Your task to perform on an android device: change notifications settings Image 0: 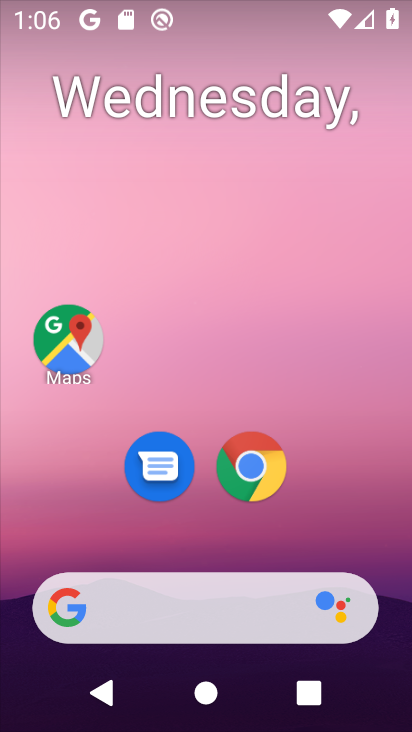
Step 0: drag from (299, 518) to (304, 240)
Your task to perform on an android device: change notifications settings Image 1: 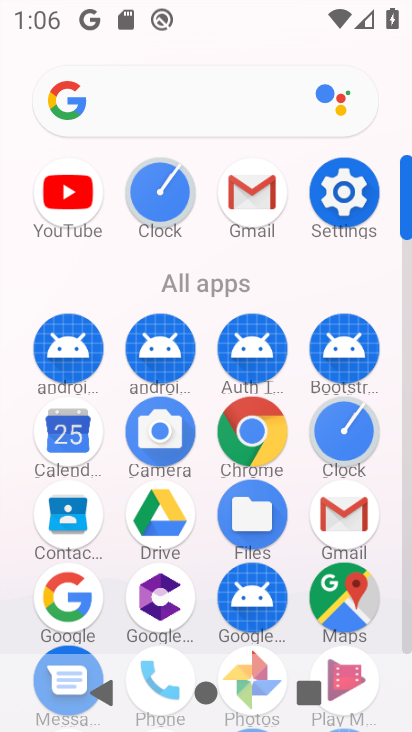
Step 1: click (337, 188)
Your task to perform on an android device: change notifications settings Image 2: 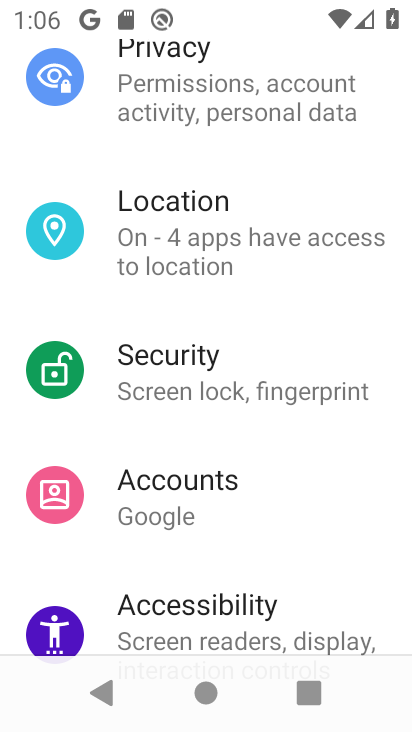
Step 2: drag from (333, 183) to (336, 587)
Your task to perform on an android device: change notifications settings Image 3: 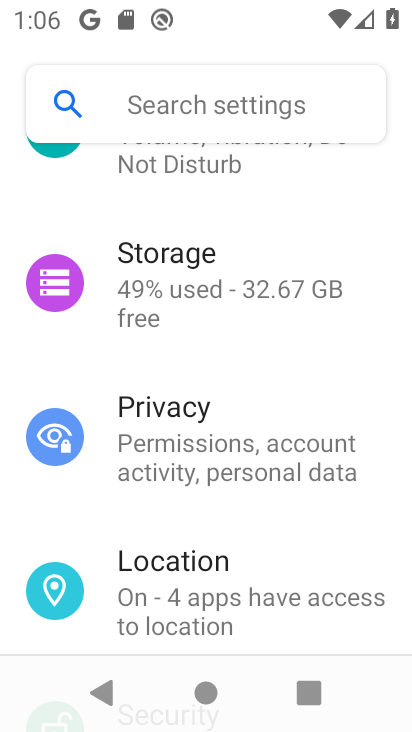
Step 3: drag from (346, 240) to (332, 555)
Your task to perform on an android device: change notifications settings Image 4: 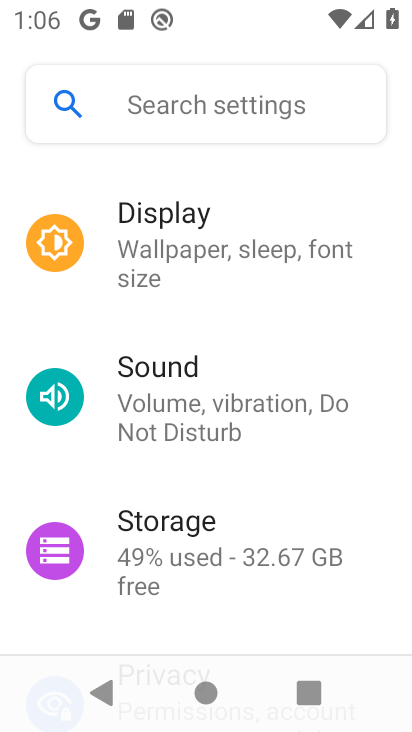
Step 4: drag from (286, 306) to (272, 612)
Your task to perform on an android device: change notifications settings Image 5: 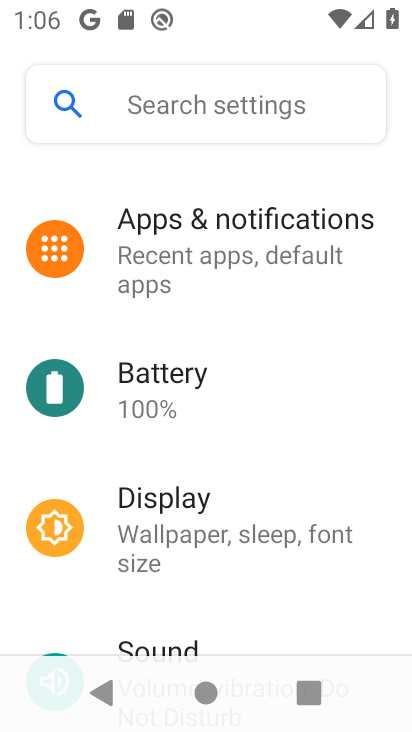
Step 5: drag from (281, 305) to (350, 533)
Your task to perform on an android device: change notifications settings Image 6: 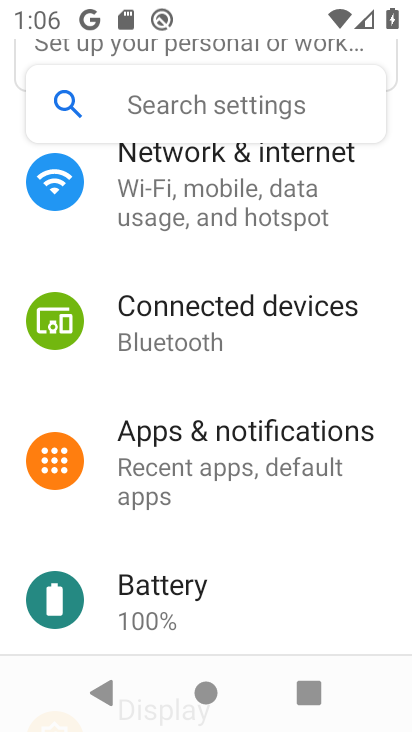
Step 6: click (246, 440)
Your task to perform on an android device: change notifications settings Image 7: 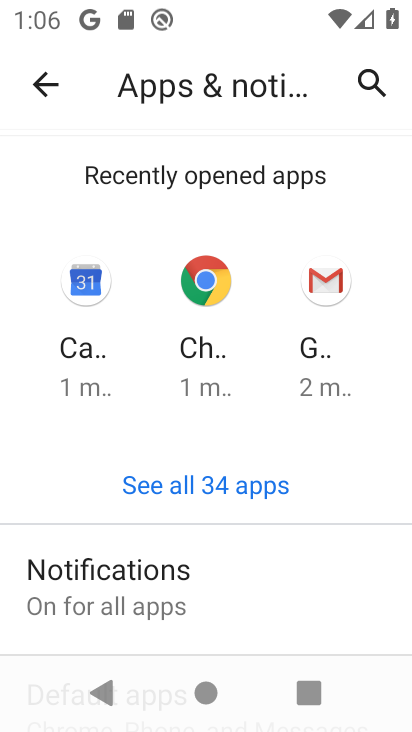
Step 7: click (262, 600)
Your task to perform on an android device: change notifications settings Image 8: 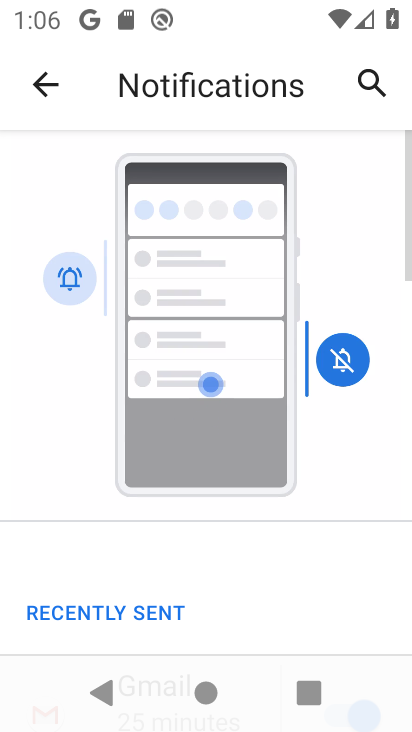
Step 8: drag from (259, 601) to (370, 151)
Your task to perform on an android device: change notifications settings Image 9: 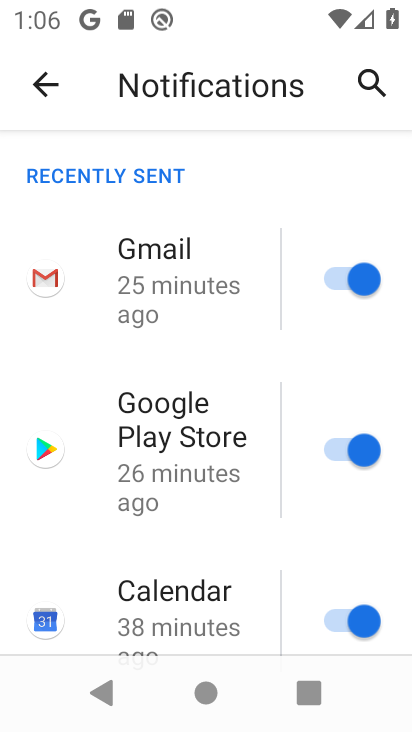
Step 9: drag from (153, 560) to (235, 243)
Your task to perform on an android device: change notifications settings Image 10: 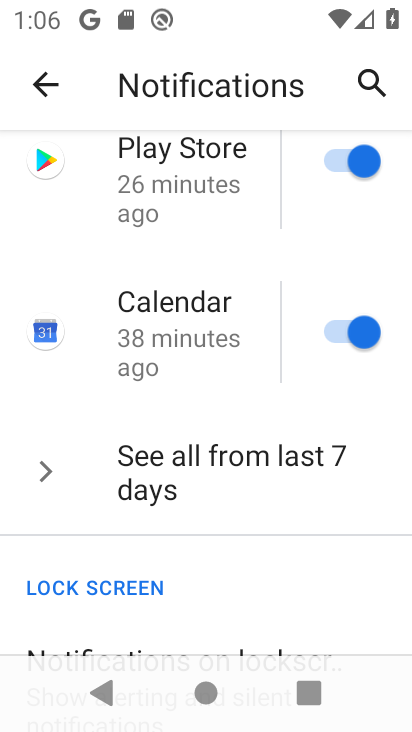
Step 10: drag from (163, 560) to (237, 153)
Your task to perform on an android device: change notifications settings Image 11: 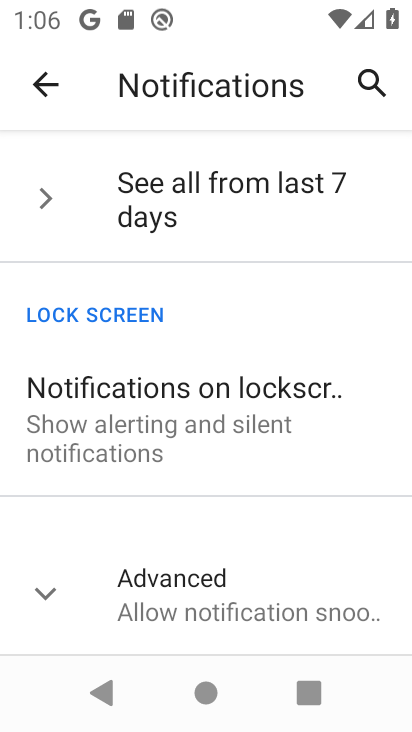
Step 11: click (134, 596)
Your task to perform on an android device: change notifications settings Image 12: 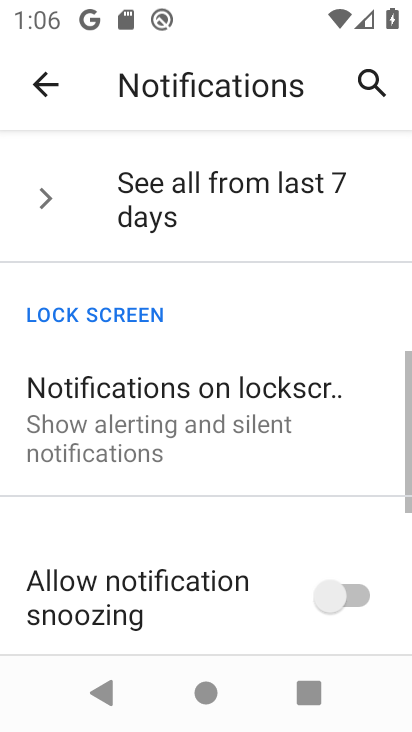
Step 12: drag from (135, 597) to (227, 198)
Your task to perform on an android device: change notifications settings Image 13: 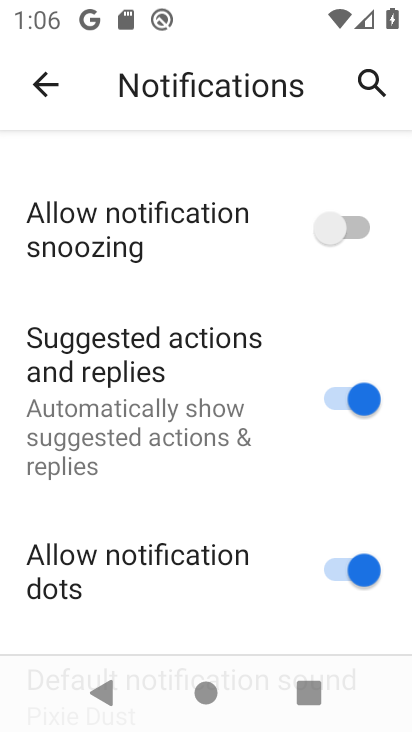
Step 13: drag from (170, 605) to (229, 293)
Your task to perform on an android device: change notifications settings Image 14: 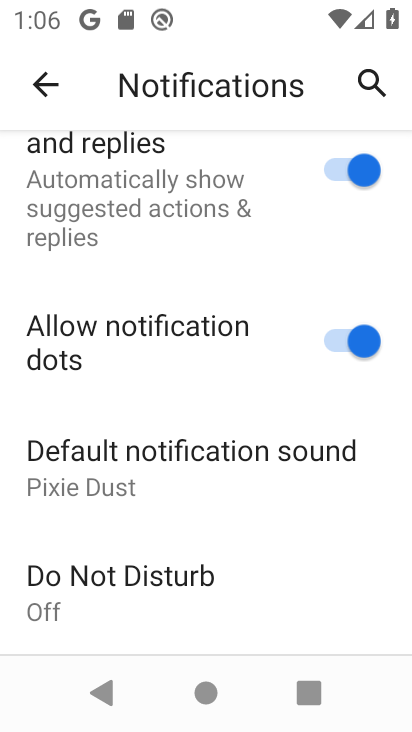
Step 14: drag from (186, 531) to (246, 227)
Your task to perform on an android device: change notifications settings Image 15: 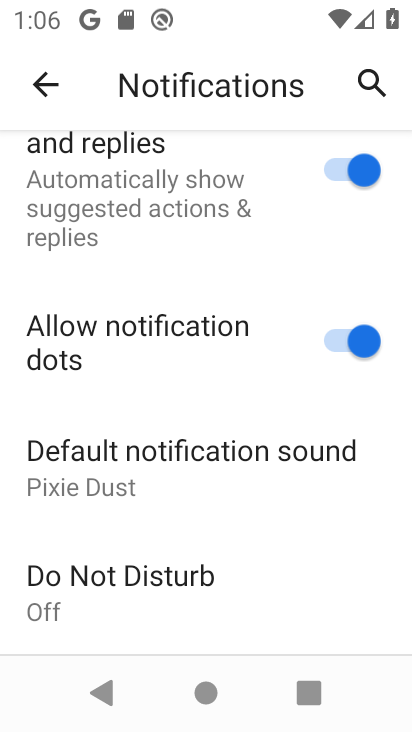
Step 15: drag from (257, 224) to (293, 596)
Your task to perform on an android device: change notifications settings Image 16: 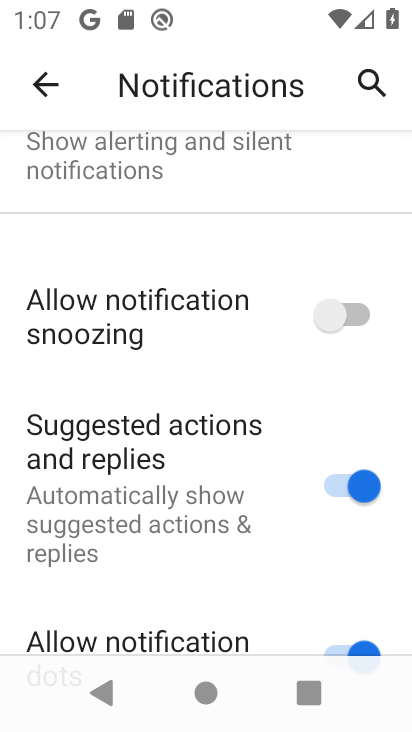
Step 16: drag from (251, 239) to (255, 593)
Your task to perform on an android device: change notifications settings Image 17: 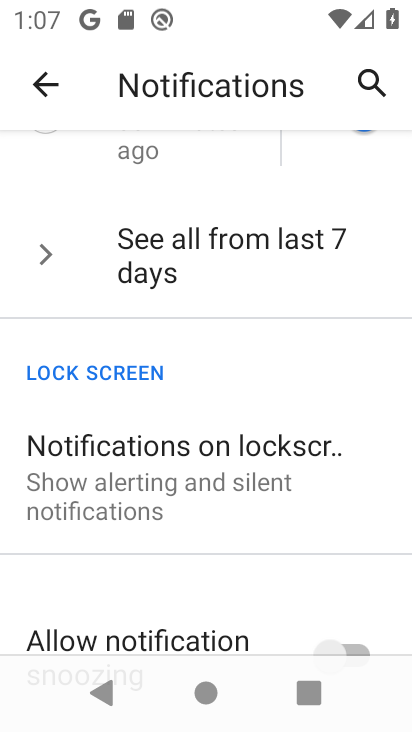
Step 17: click (214, 461)
Your task to perform on an android device: change notifications settings Image 18: 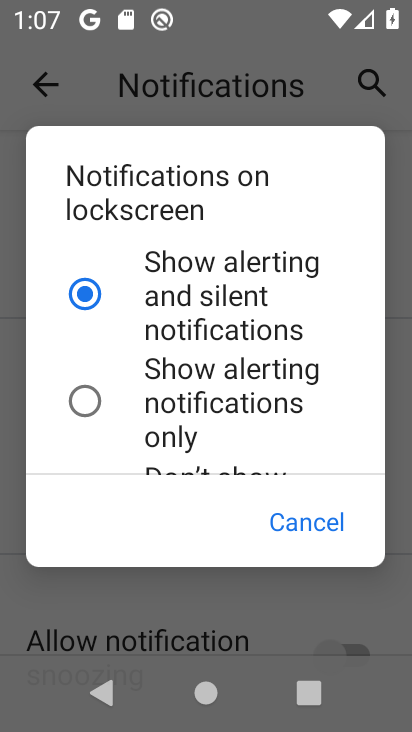
Step 18: click (81, 404)
Your task to perform on an android device: change notifications settings Image 19: 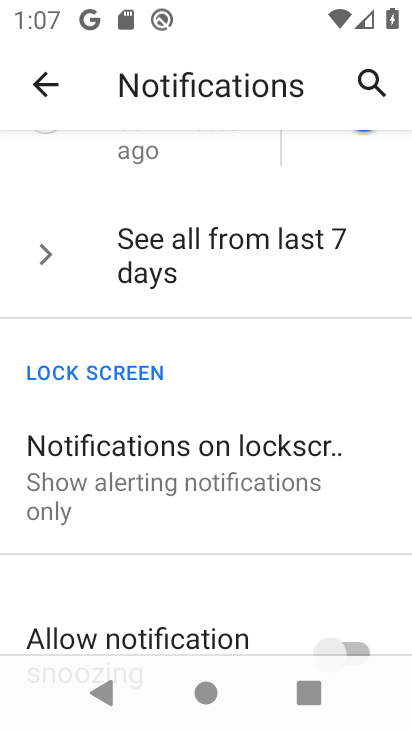
Step 19: task complete